Your task to perform on an android device: Do I have any events today? Image 0: 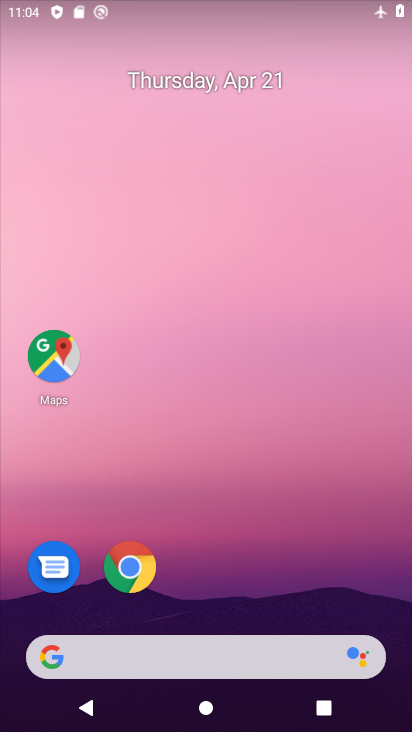
Step 0: drag from (253, 519) to (329, 175)
Your task to perform on an android device: Do I have any events today? Image 1: 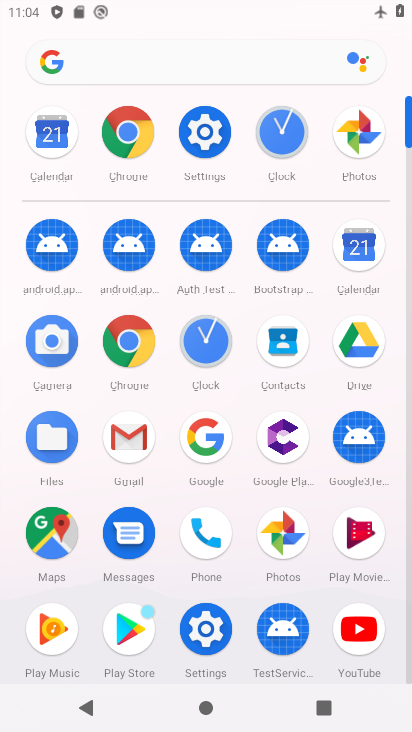
Step 1: click (362, 258)
Your task to perform on an android device: Do I have any events today? Image 2: 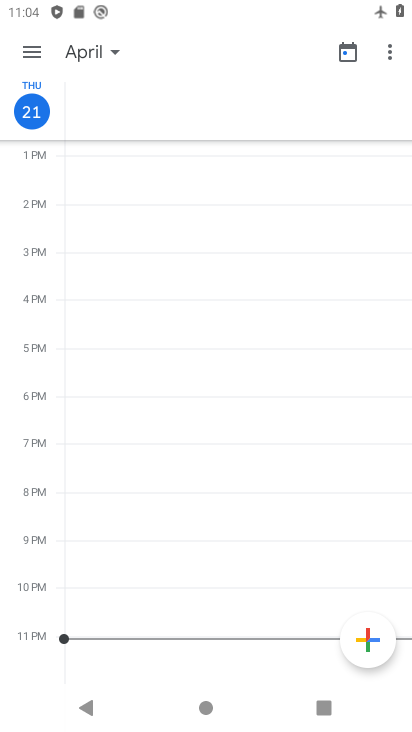
Step 2: click (29, 39)
Your task to perform on an android device: Do I have any events today? Image 3: 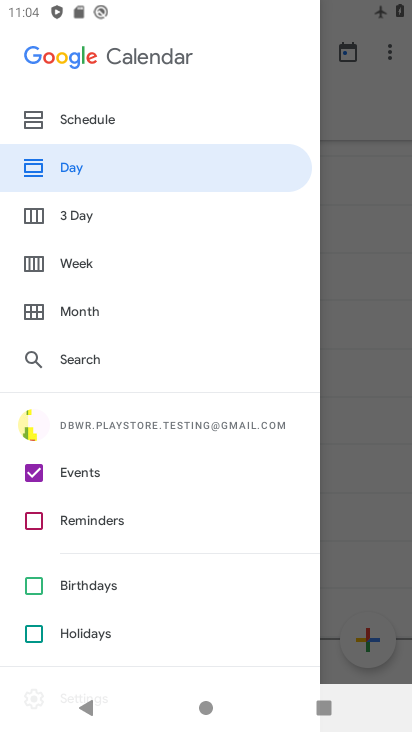
Step 3: click (89, 216)
Your task to perform on an android device: Do I have any events today? Image 4: 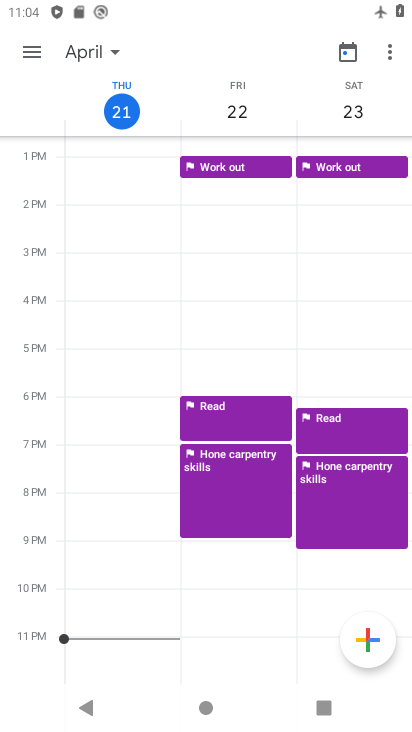
Step 4: task complete